Your task to perform on an android device: What's the US dollar exchange rate against the Canadian Dollar? Image 0: 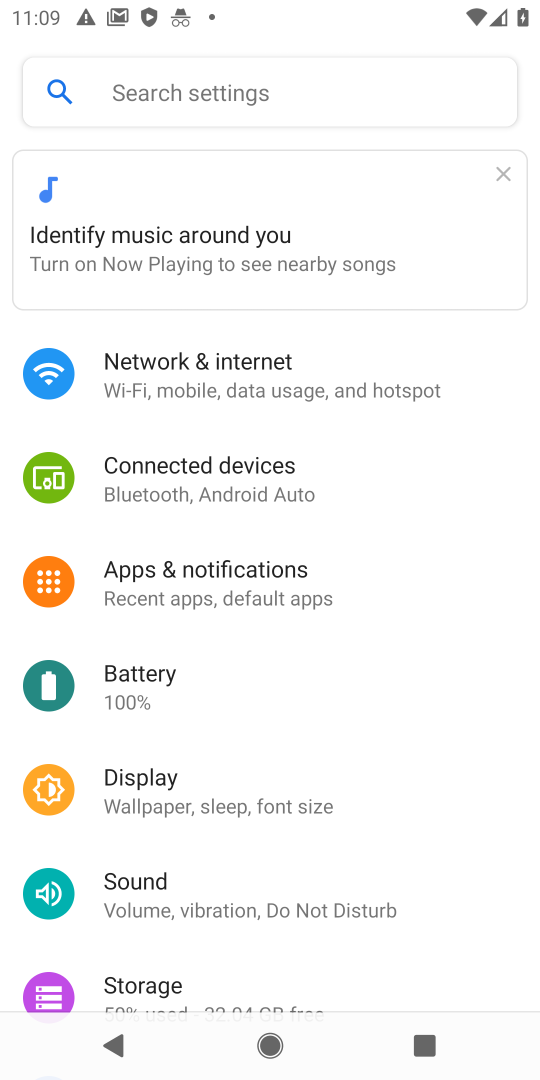
Step 0: press home button
Your task to perform on an android device: What's the US dollar exchange rate against the Canadian Dollar? Image 1: 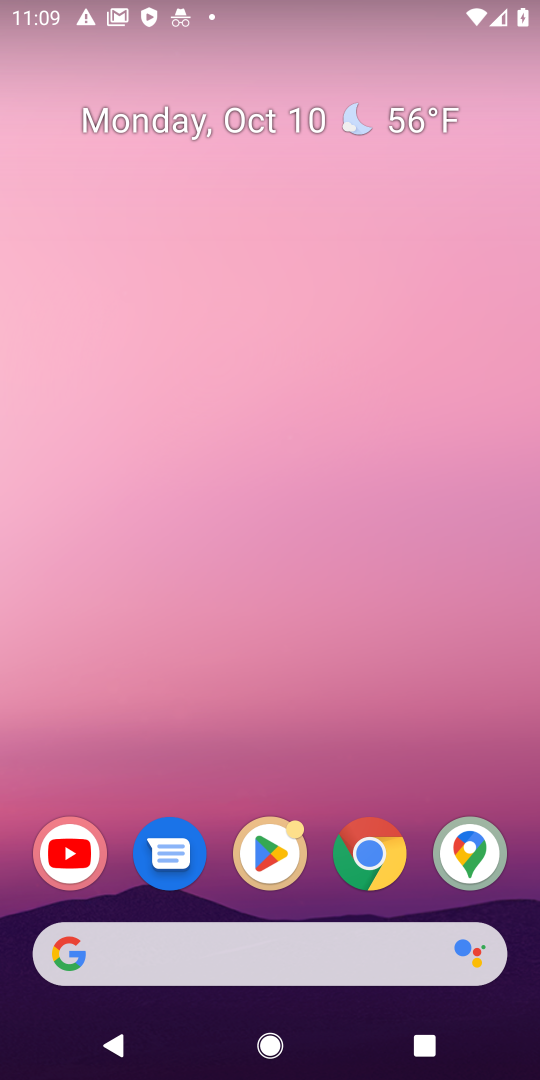
Step 1: click (257, 967)
Your task to perform on an android device: What's the US dollar exchange rate against the Canadian Dollar? Image 2: 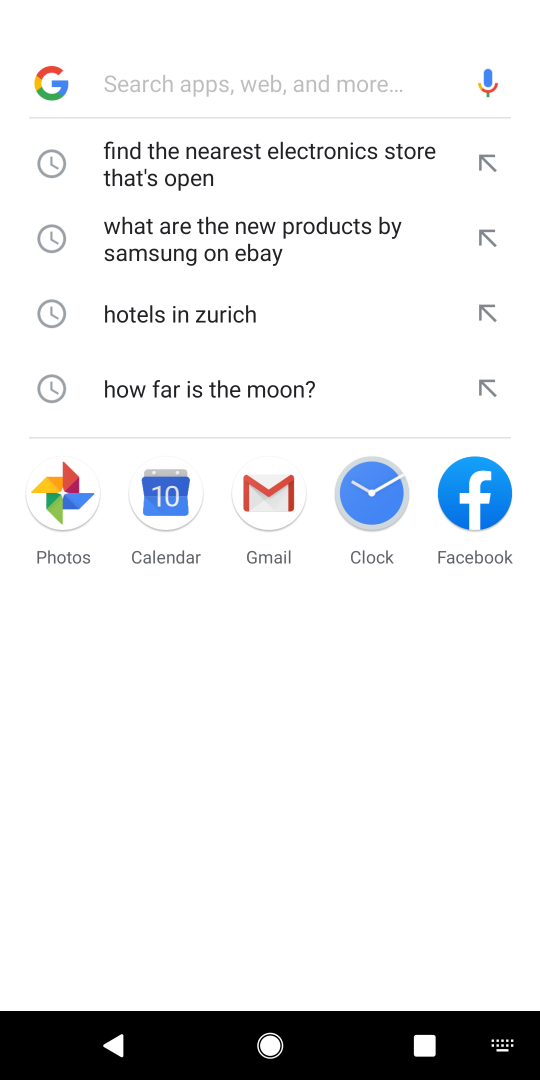
Step 2: press enter
Your task to perform on an android device: What's the US dollar exchange rate against the Canadian Dollar? Image 3: 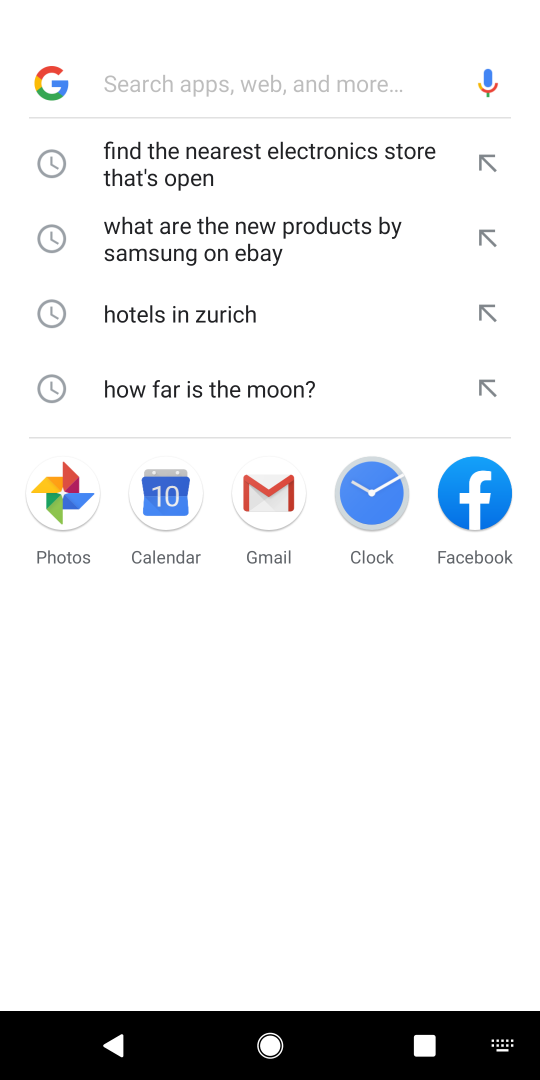
Step 3: type " US dollar exchange rate against the Canadian Dollar"
Your task to perform on an android device: What's the US dollar exchange rate against the Canadian Dollar? Image 4: 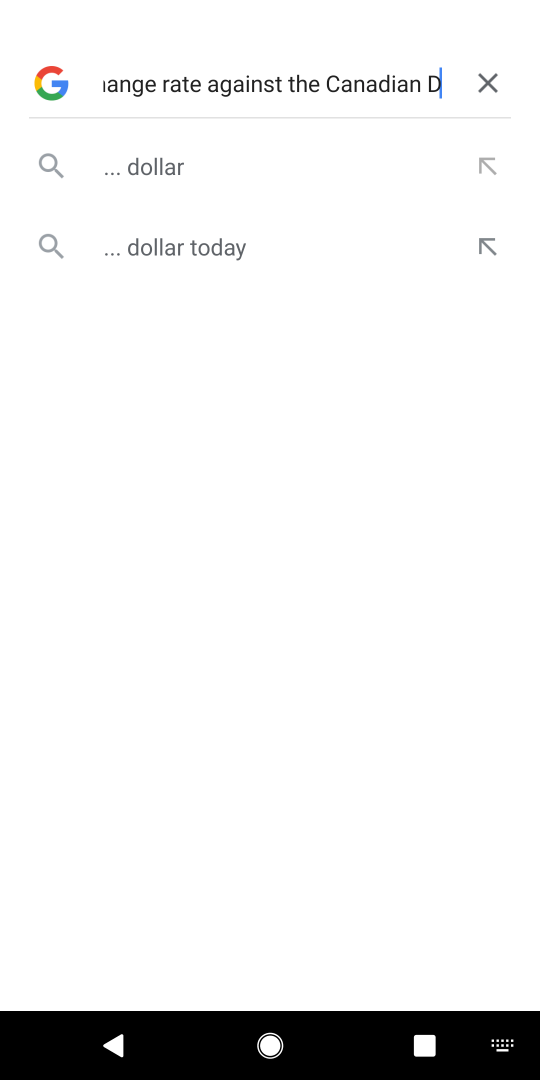
Step 4: press enter
Your task to perform on an android device: What's the US dollar exchange rate against the Canadian Dollar? Image 5: 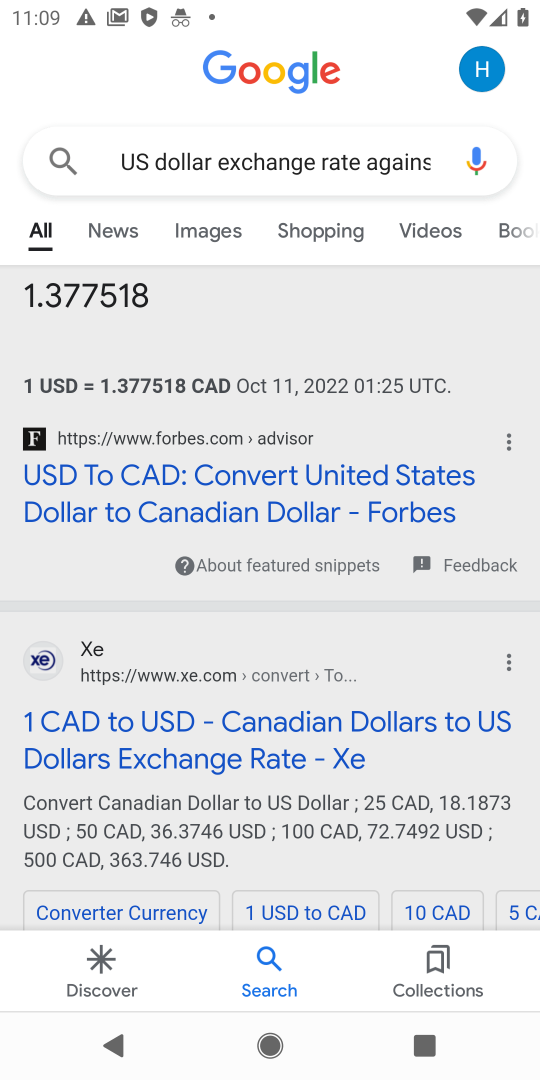
Step 5: drag from (350, 341) to (340, 714)
Your task to perform on an android device: What's the US dollar exchange rate against the Canadian Dollar? Image 6: 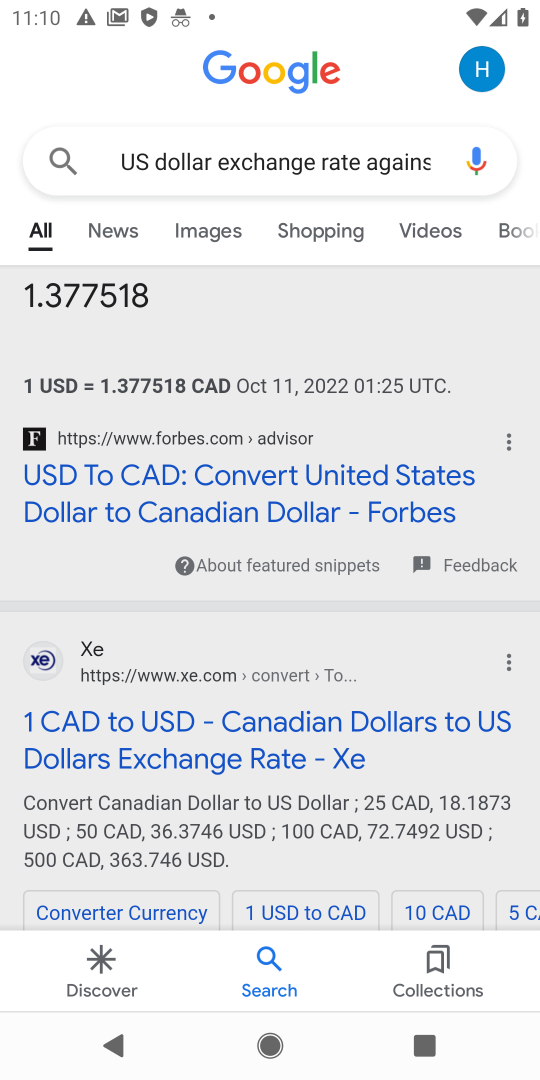
Step 6: drag from (321, 811) to (326, 412)
Your task to perform on an android device: What's the US dollar exchange rate against the Canadian Dollar? Image 7: 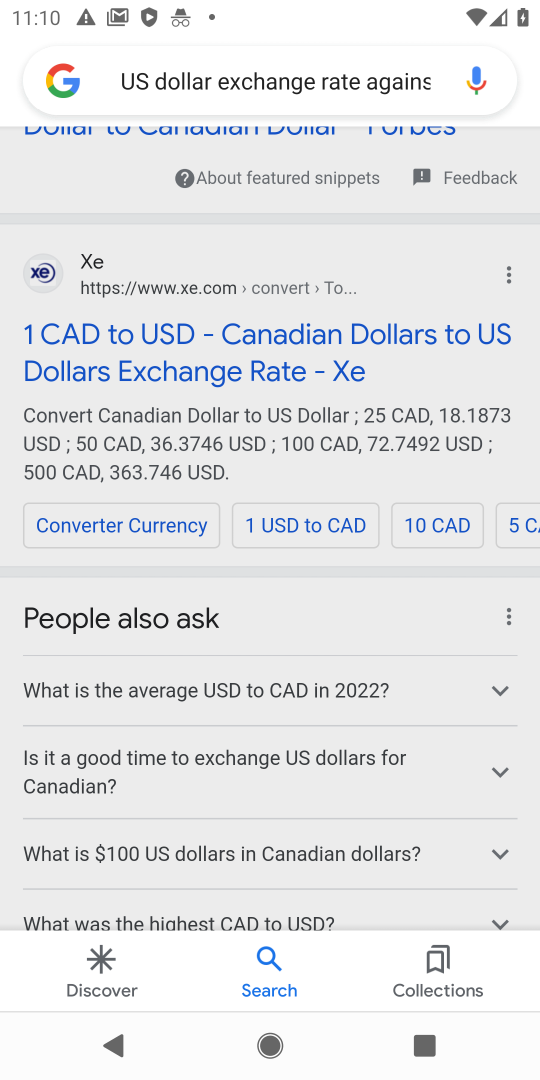
Step 7: drag from (305, 784) to (381, 376)
Your task to perform on an android device: What's the US dollar exchange rate against the Canadian Dollar? Image 8: 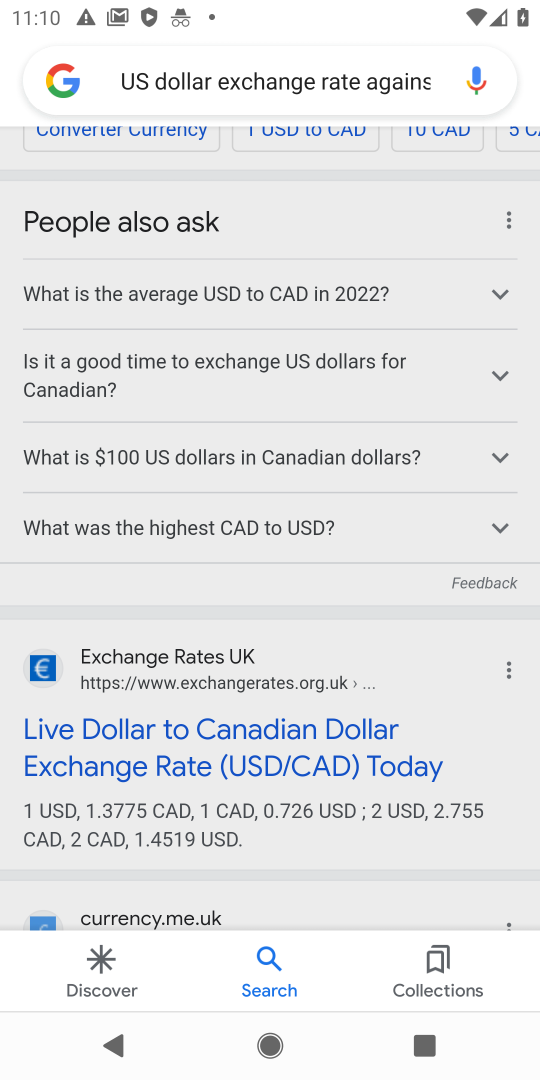
Step 8: drag from (304, 774) to (352, 469)
Your task to perform on an android device: What's the US dollar exchange rate against the Canadian Dollar? Image 9: 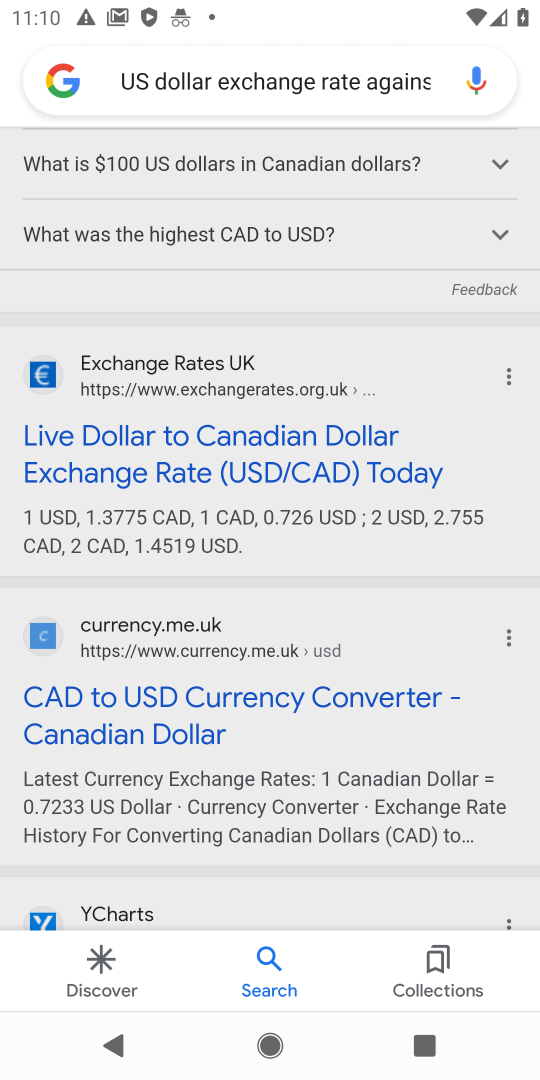
Step 9: click (288, 458)
Your task to perform on an android device: What's the US dollar exchange rate against the Canadian Dollar? Image 10: 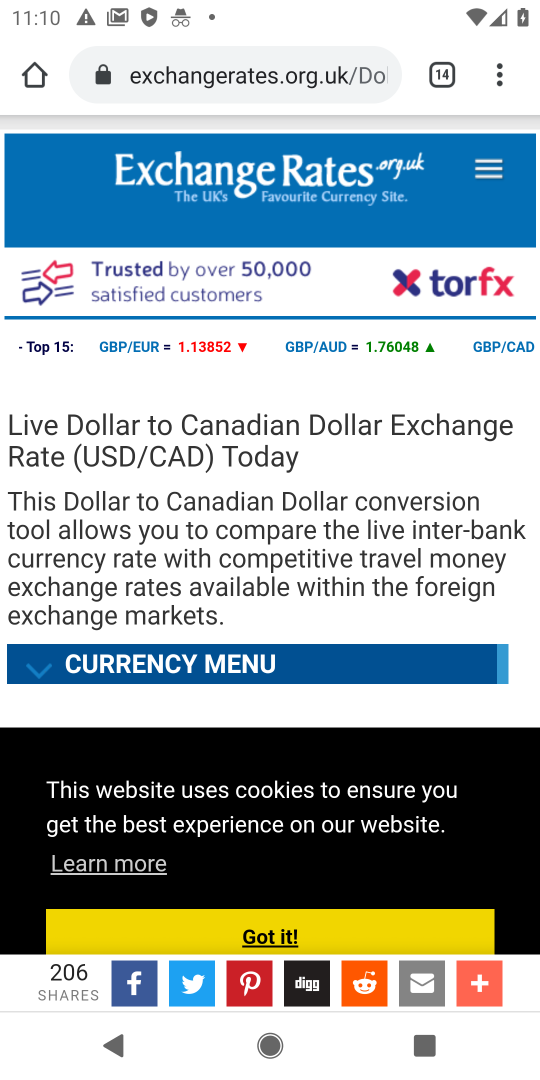
Step 10: task complete